Your task to perform on an android device: Open settings on Google Maps Image 0: 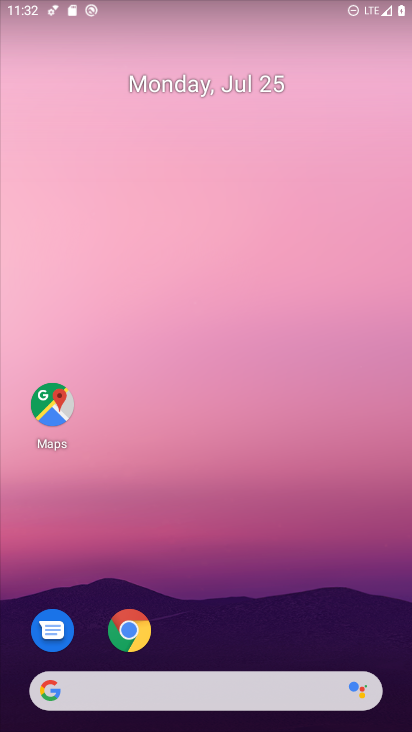
Step 0: click (51, 404)
Your task to perform on an android device: Open settings on Google Maps Image 1: 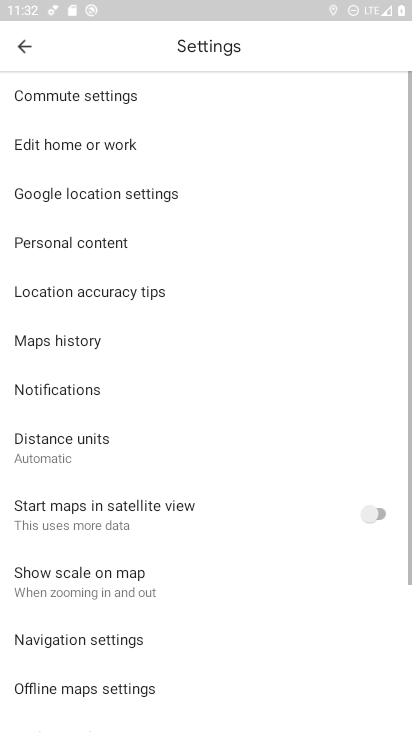
Step 1: click (14, 50)
Your task to perform on an android device: Open settings on Google Maps Image 2: 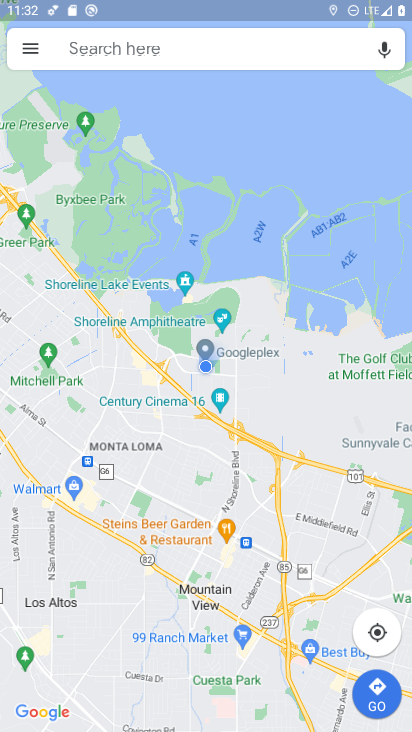
Step 2: click (31, 46)
Your task to perform on an android device: Open settings on Google Maps Image 3: 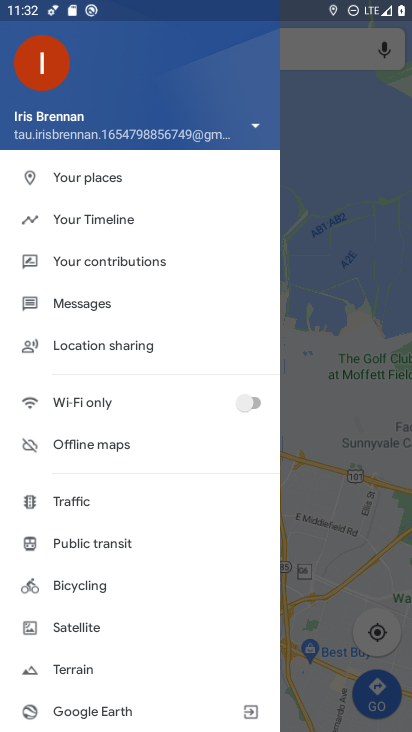
Step 3: drag from (139, 641) to (111, 257)
Your task to perform on an android device: Open settings on Google Maps Image 4: 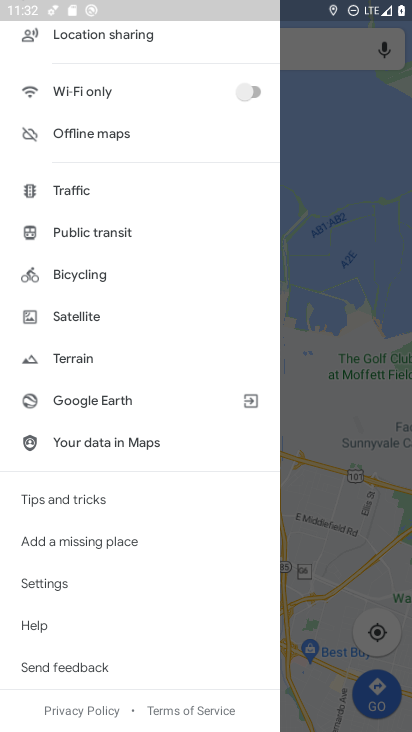
Step 4: click (36, 587)
Your task to perform on an android device: Open settings on Google Maps Image 5: 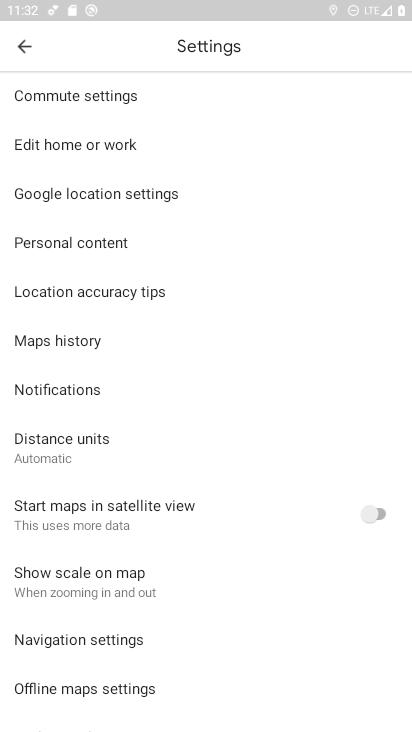
Step 5: task complete